Your task to perform on an android device: Clear the cart on walmart. Image 0: 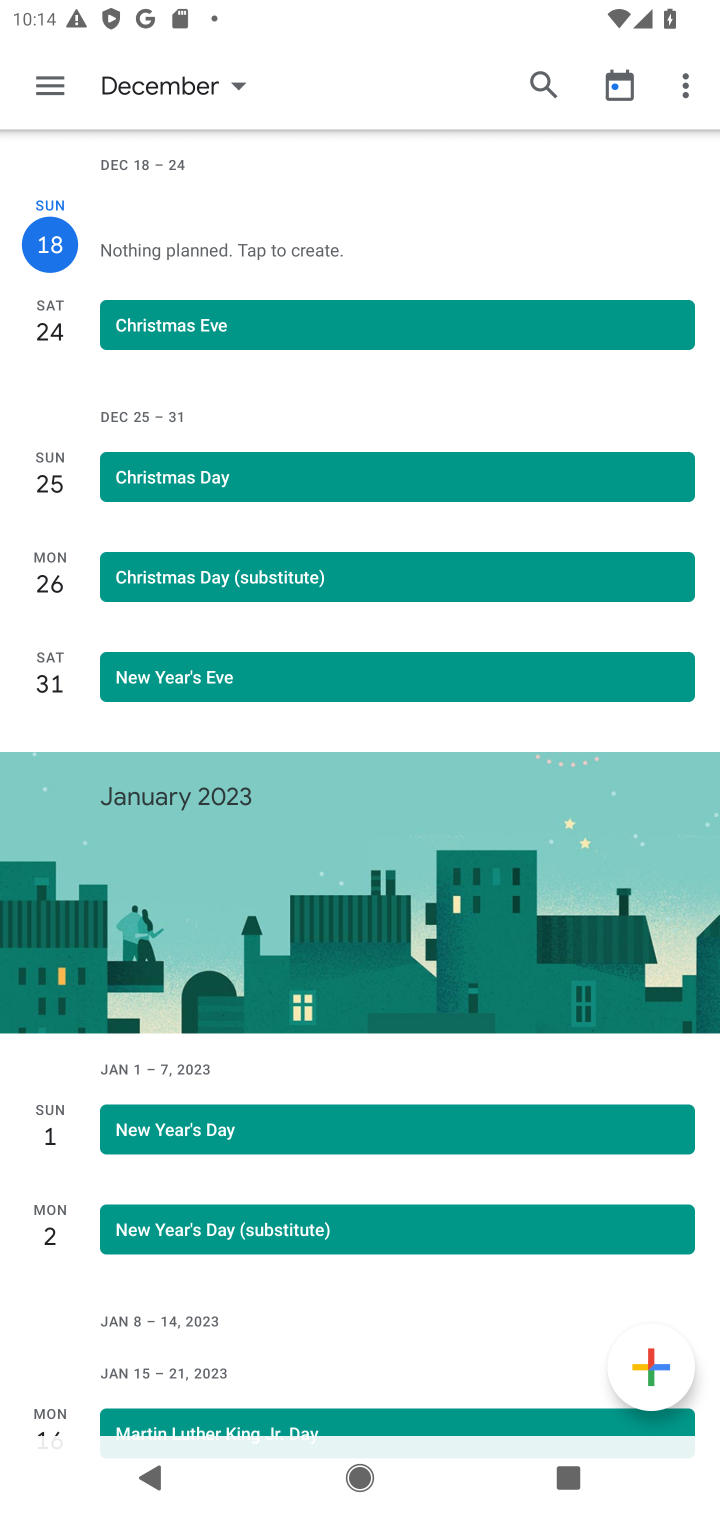
Step 0: press home button
Your task to perform on an android device: Clear the cart on walmart. Image 1: 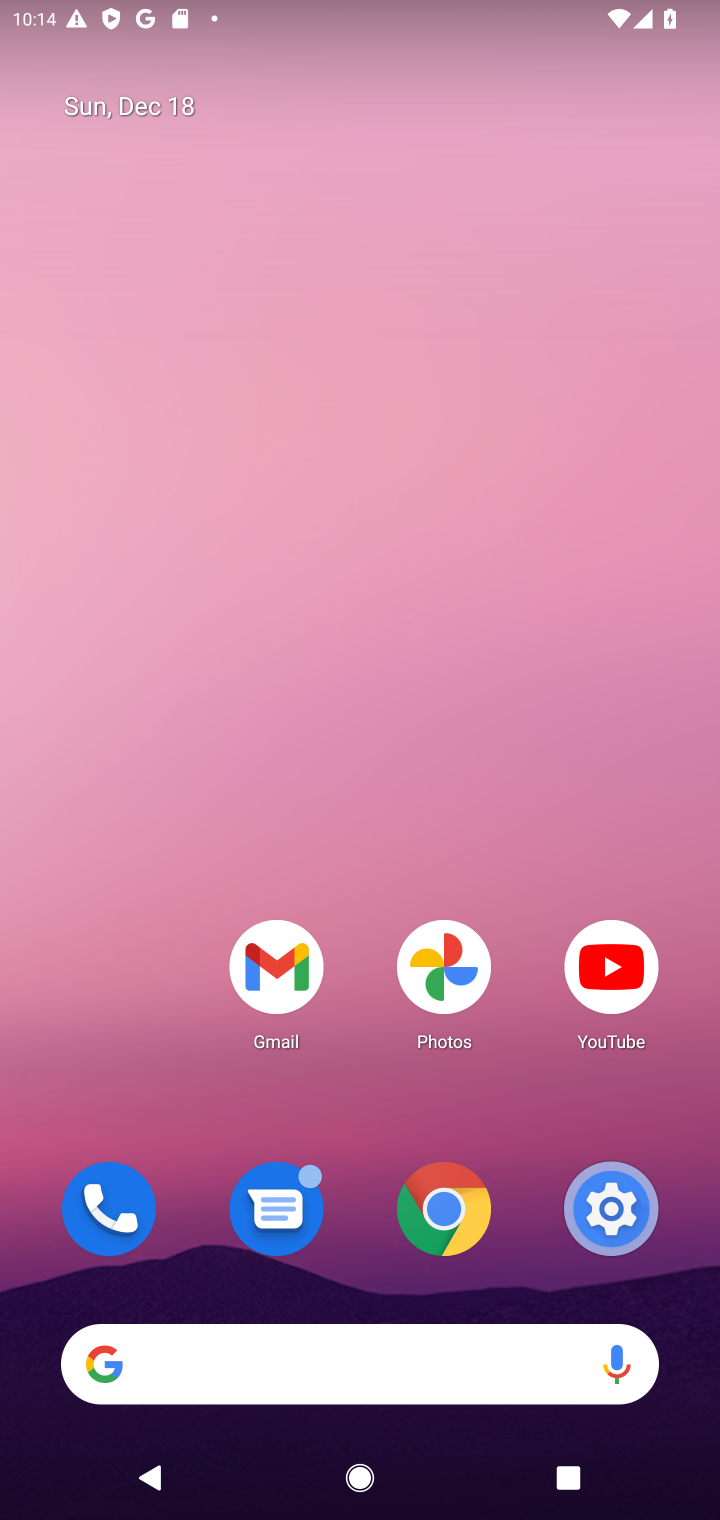
Step 1: click (453, 1198)
Your task to perform on an android device: Clear the cart on walmart. Image 2: 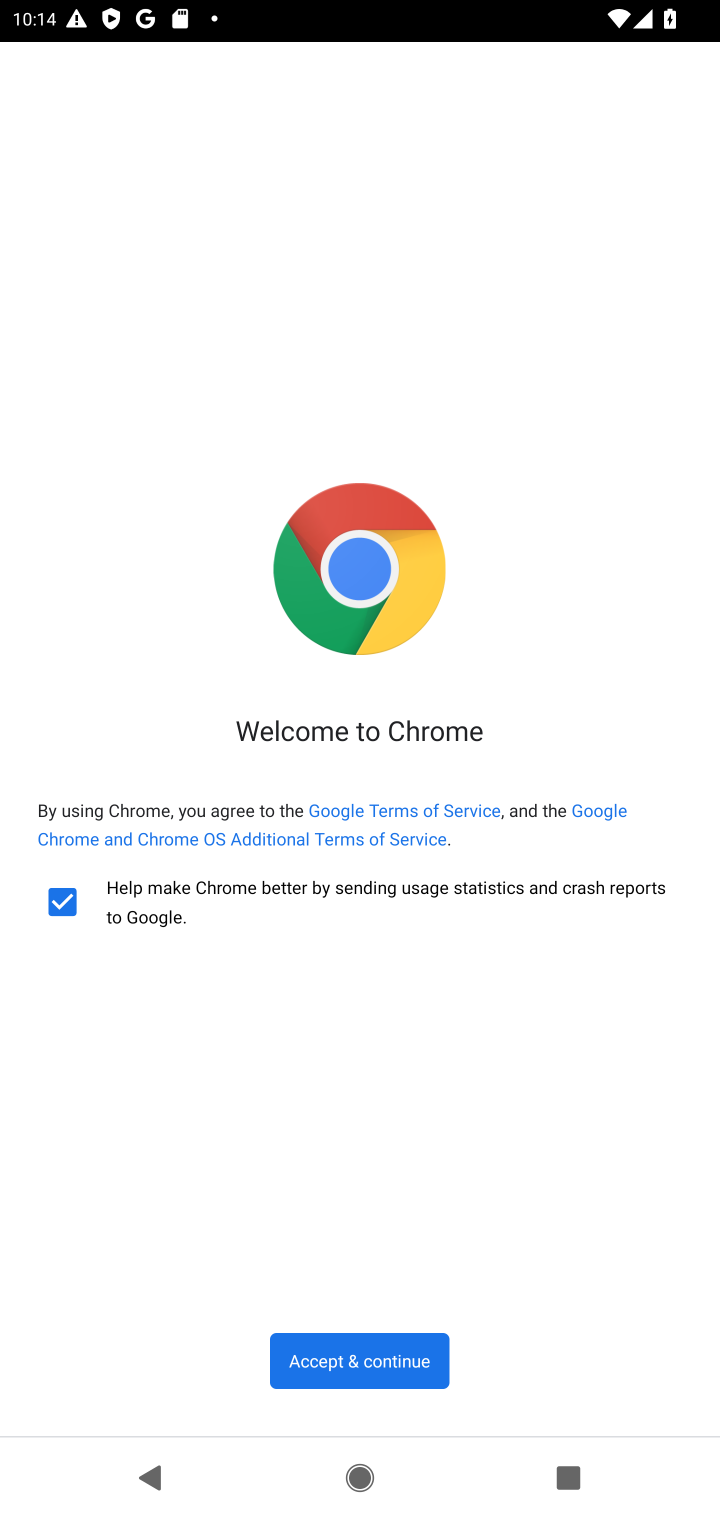
Step 2: click (371, 1360)
Your task to perform on an android device: Clear the cart on walmart. Image 3: 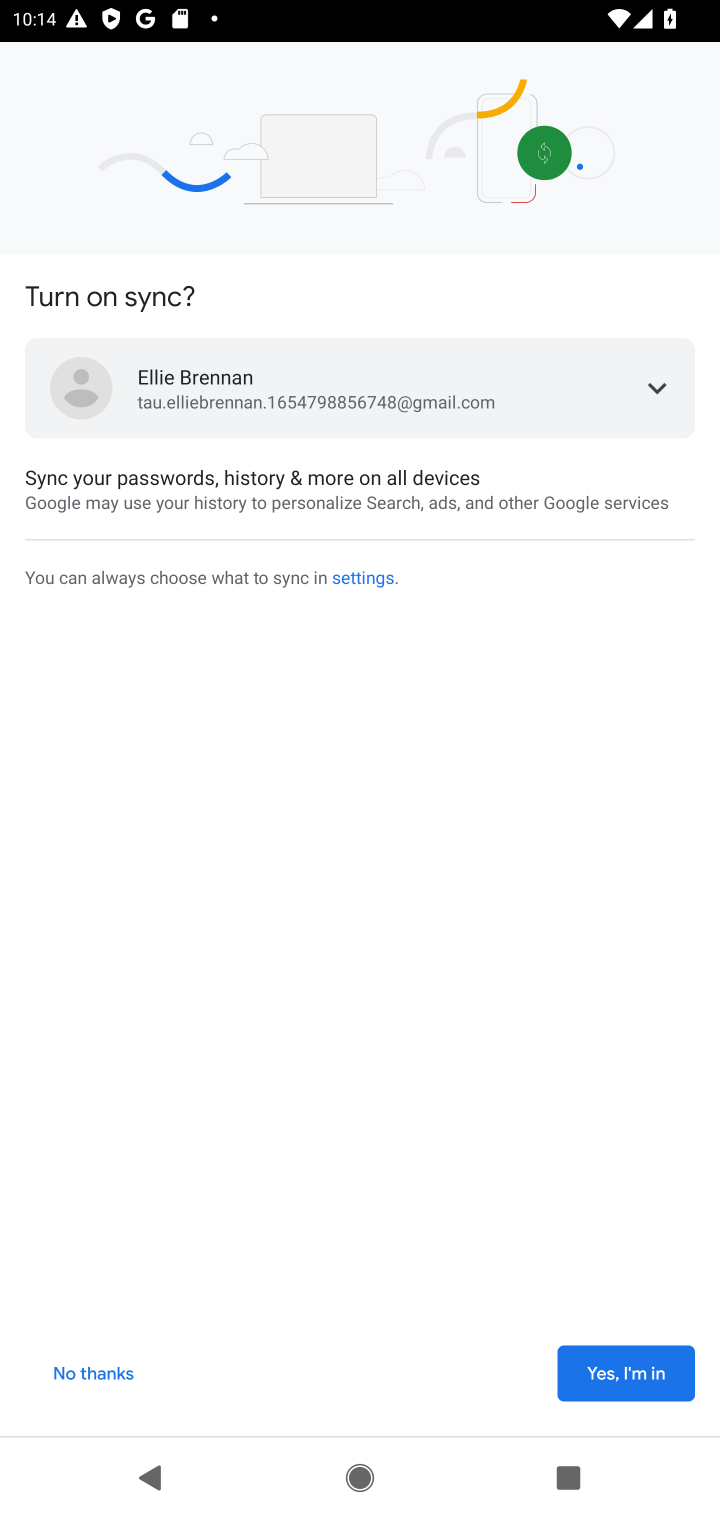
Step 3: click (614, 1370)
Your task to perform on an android device: Clear the cart on walmart. Image 4: 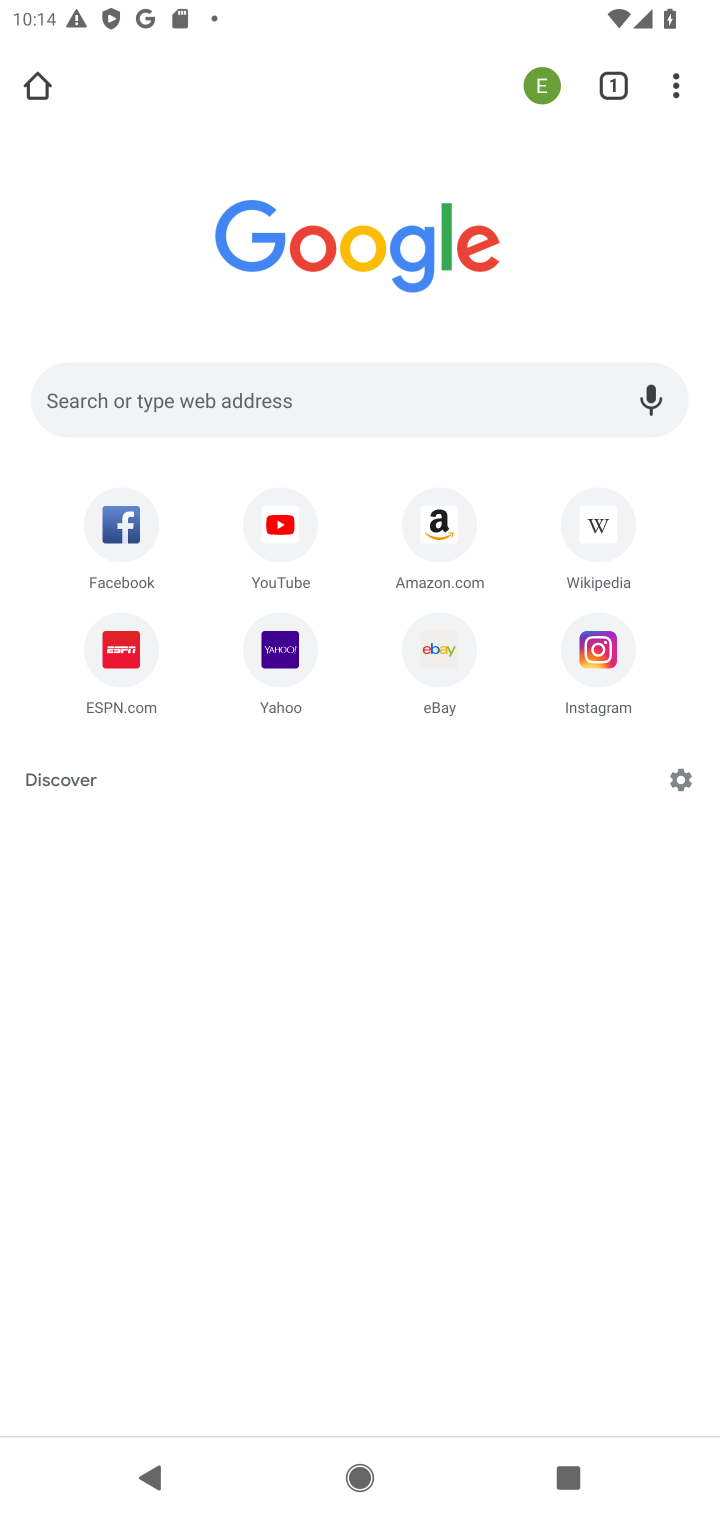
Step 4: click (374, 387)
Your task to perform on an android device: Clear the cart on walmart. Image 5: 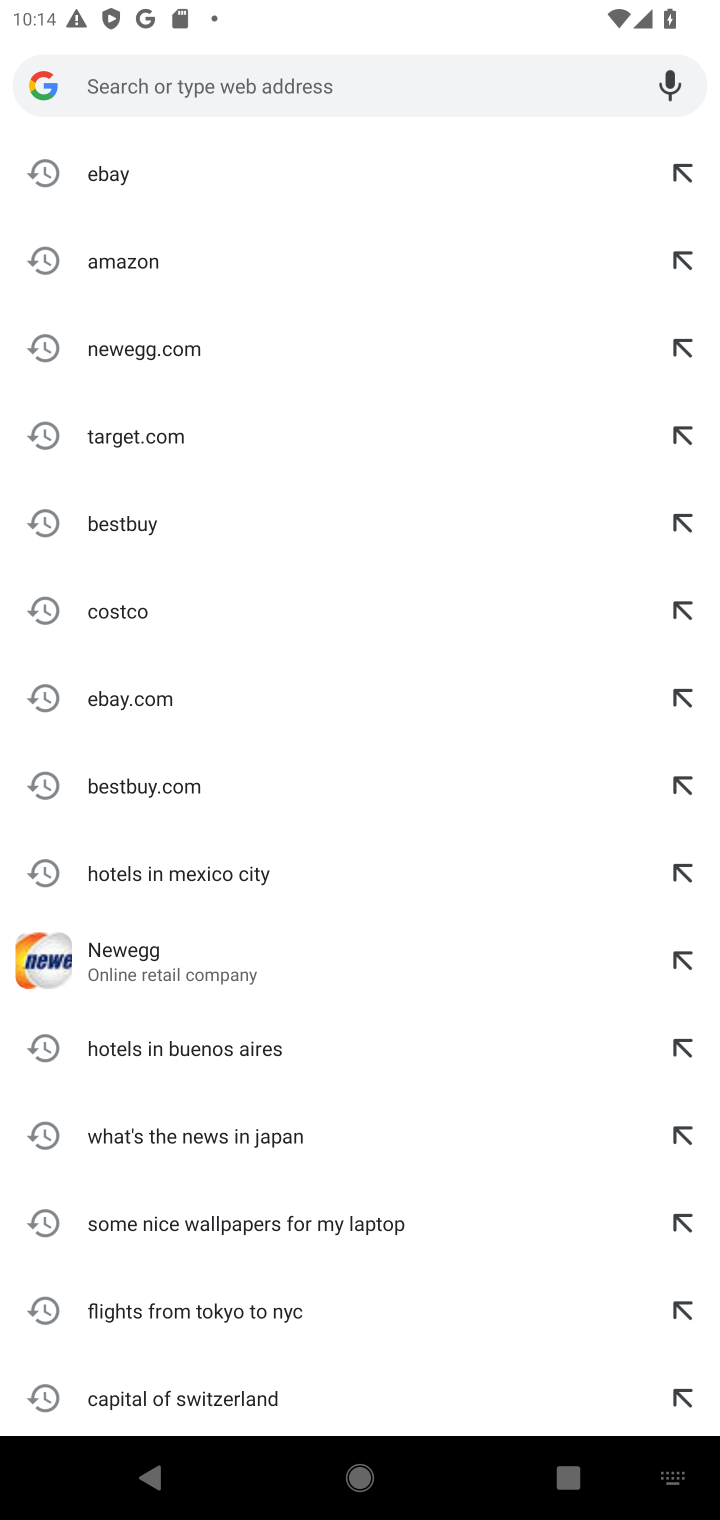
Step 5: type "WALMART"
Your task to perform on an android device: Clear the cart on walmart. Image 6: 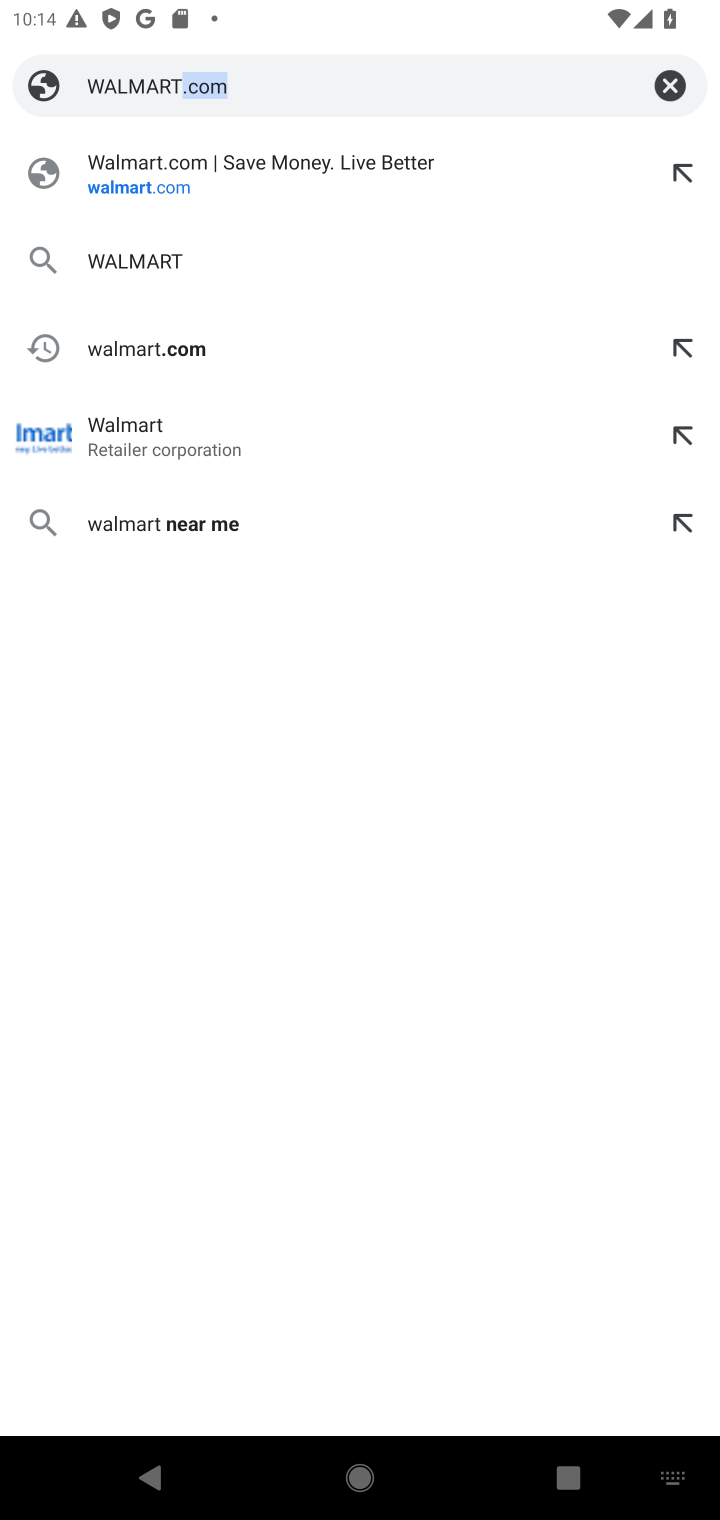
Step 6: click (183, 178)
Your task to perform on an android device: Clear the cart on walmart. Image 7: 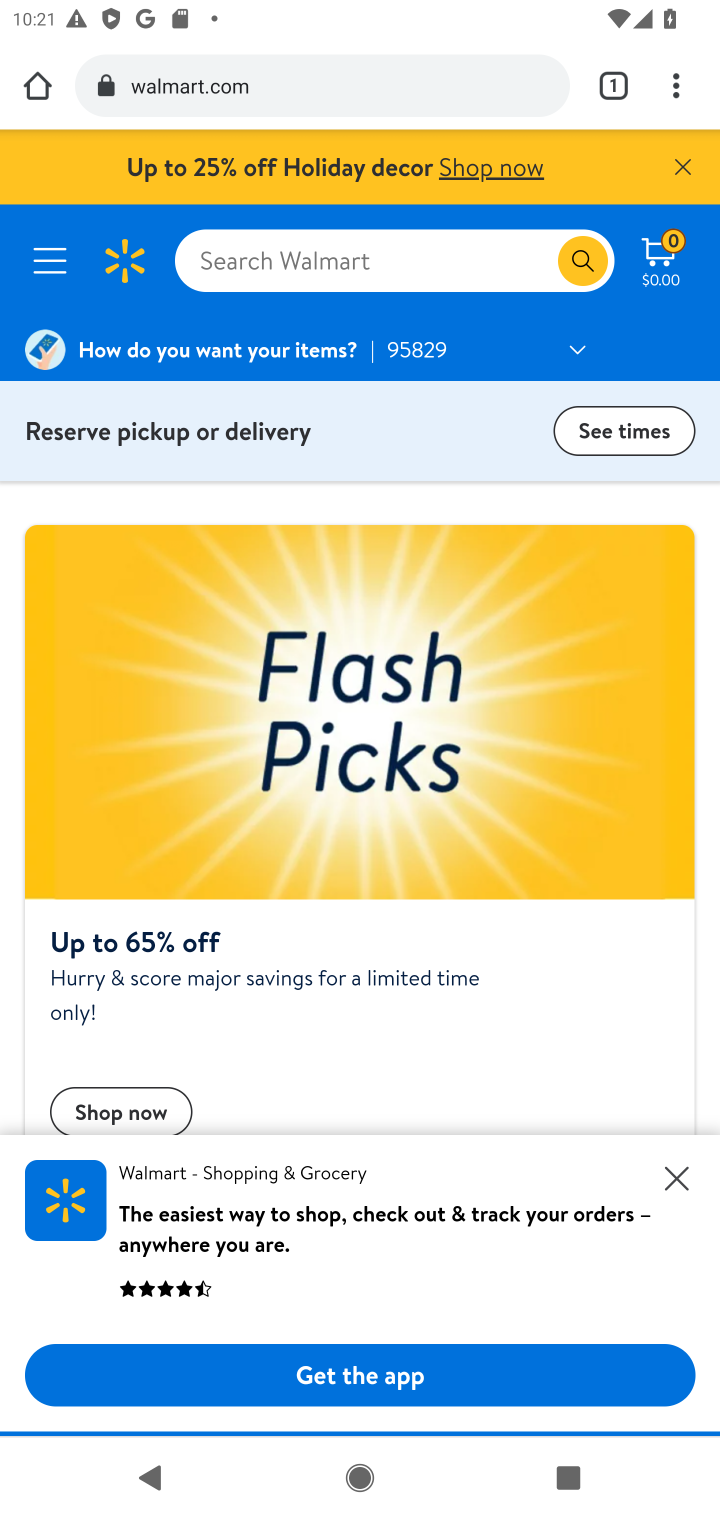
Step 7: task complete